Your task to perform on an android device: toggle improve location accuracy Image 0: 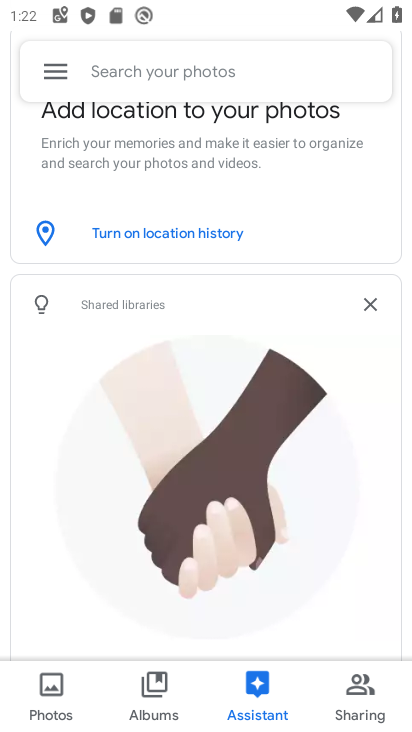
Step 0: press home button
Your task to perform on an android device: toggle improve location accuracy Image 1: 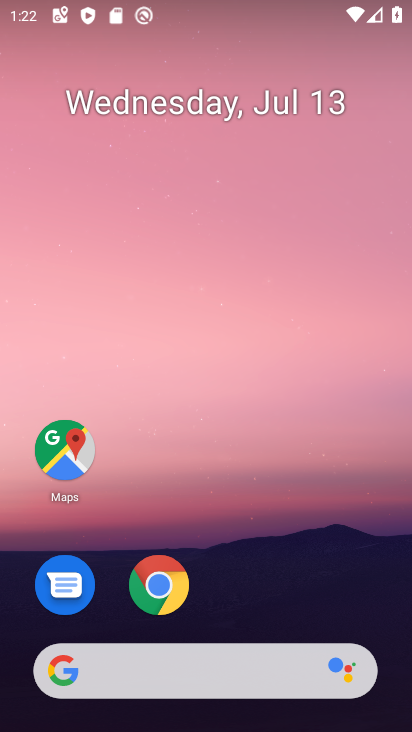
Step 1: drag from (224, 689) to (284, 178)
Your task to perform on an android device: toggle improve location accuracy Image 2: 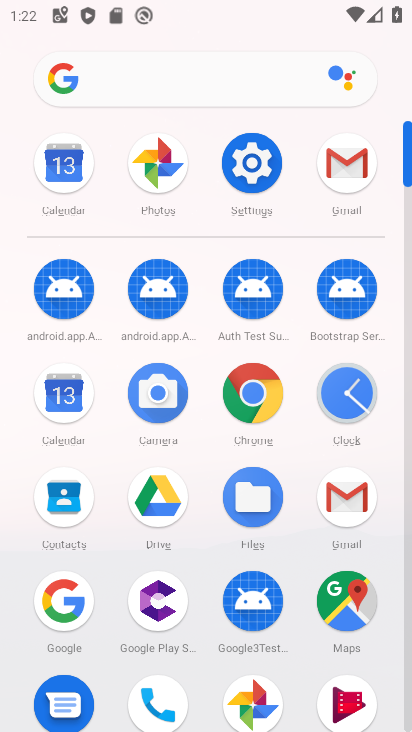
Step 2: click (252, 171)
Your task to perform on an android device: toggle improve location accuracy Image 3: 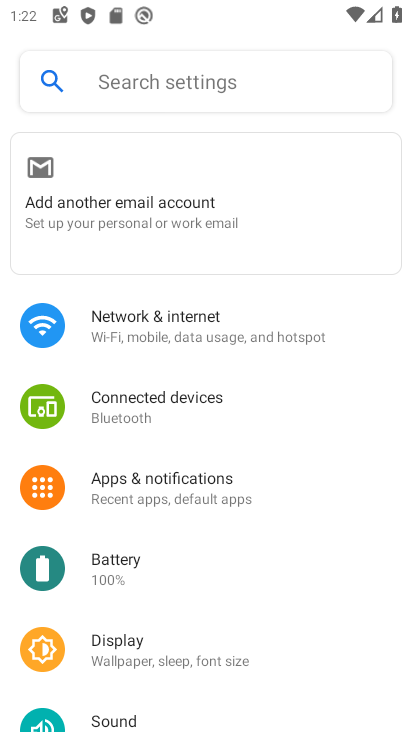
Step 3: drag from (267, 623) to (349, 88)
Your task to perform on an android device: toggle improve location accuracy Image 4: 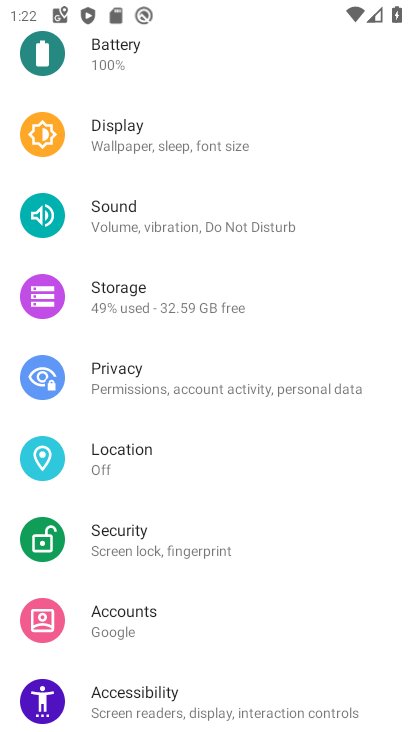
Step 4: click (156, 461)
Your task to perform on an android device: toggle improve location accuracy Image 5: 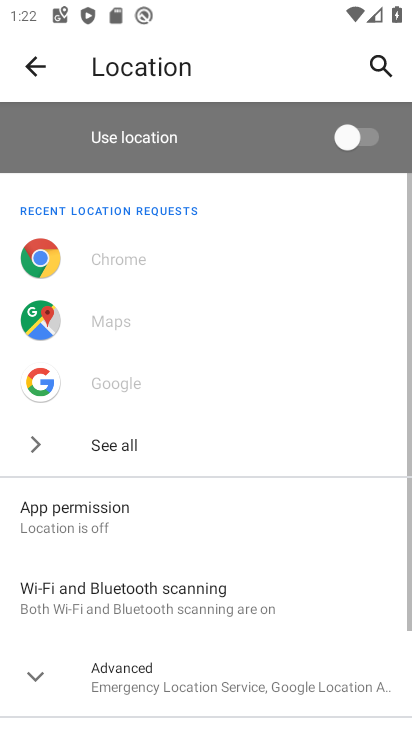
Step 5: drag from (200, 555) to (327, 120)
Your task to perform on an android device: toggle improve location accuracy Image 6: 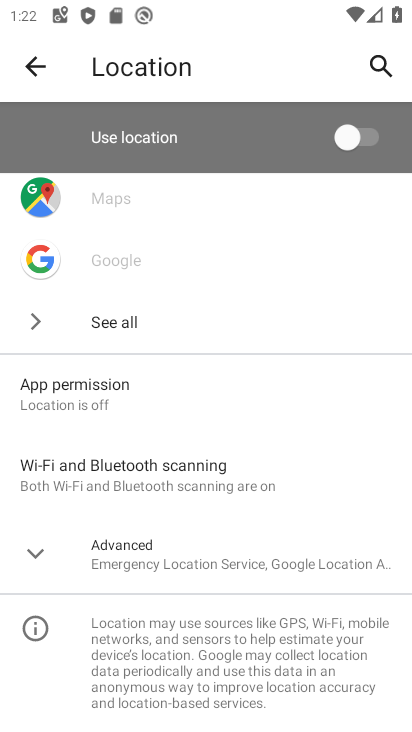
Step 6: click (145, 550)
Your task to perform on an android device: toggle improve location accuracy Image 7: 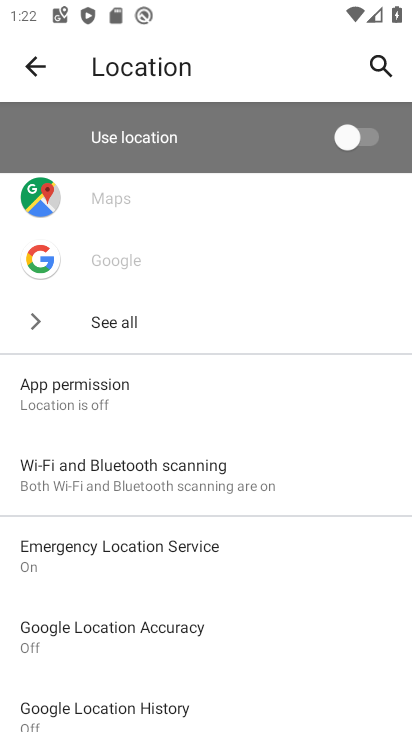
Step 7: click (168, 635)
Your task to perform on an android device: toggle improve location accuracy Image 8: 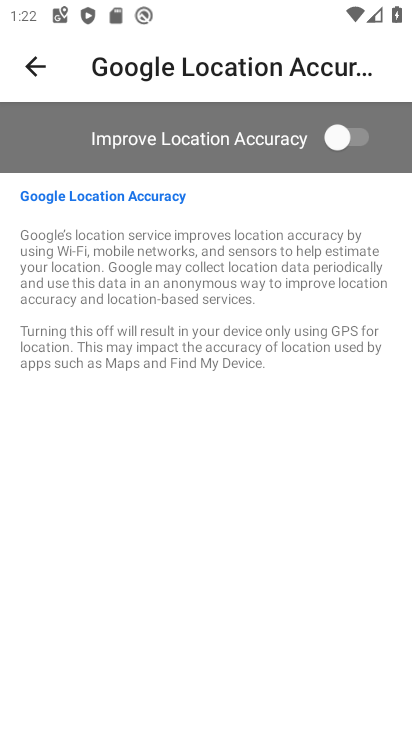
Step 8: click (360, 139)
Your task to perform on an android device: toggle improve location accuracy Image 9: 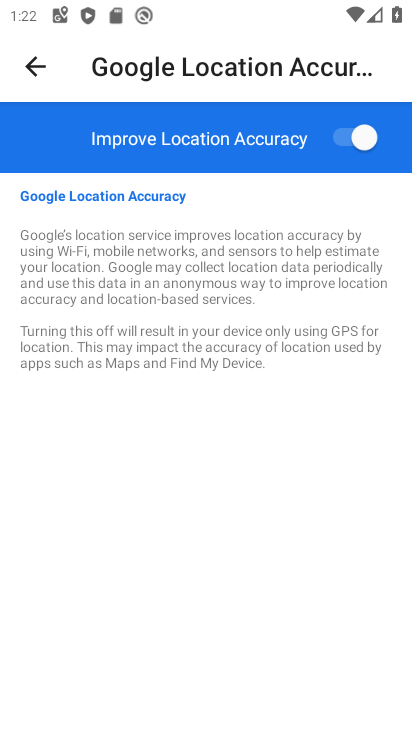
Step 9: task complete